Your task to perform on an android device: change the upload size in google photos Image 0: 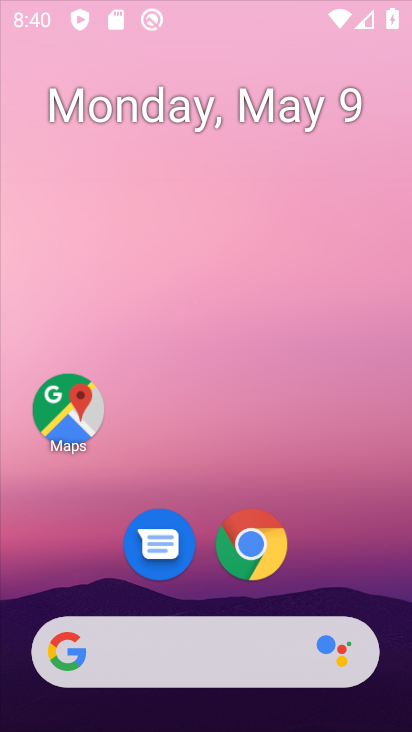
Step 0: click (190, 630)
Your task to perform on an android device: change the upload size in google photos Image 1: 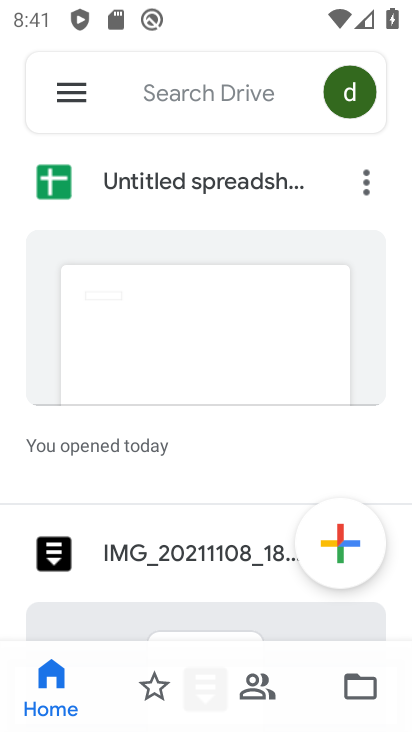
Step 1: press home button
Your task to perform on an android device: change the upload size in google photos Image 2: 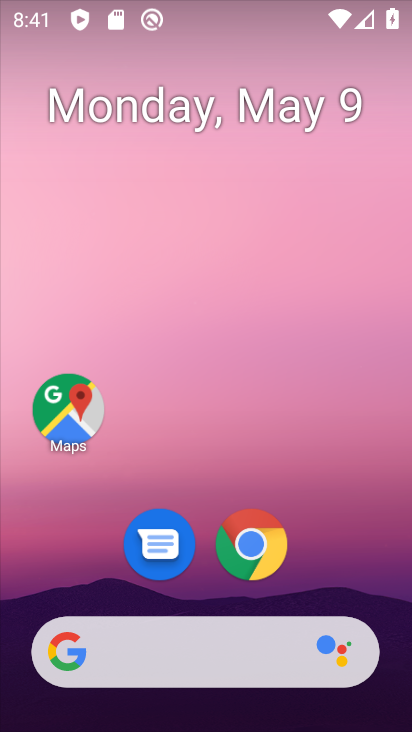
Step 2: drag from (341, 575) to (149, 43)
Your task to perform on an android device: change the upload size in google photos Image 3: 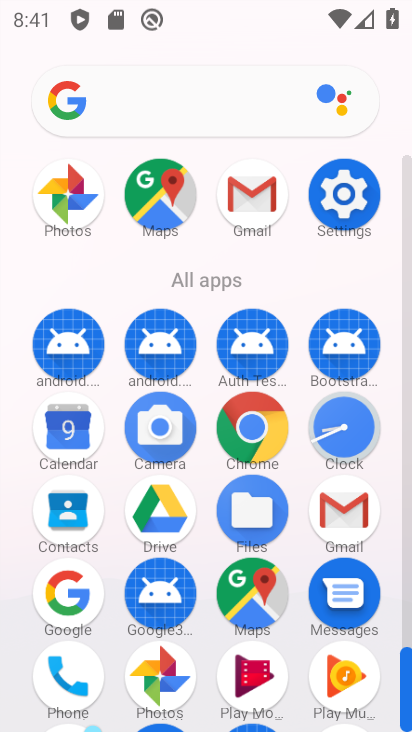
Step 3: click (69, 190)
Your task to perform on an android device: change the upload size in google photos Image 4: 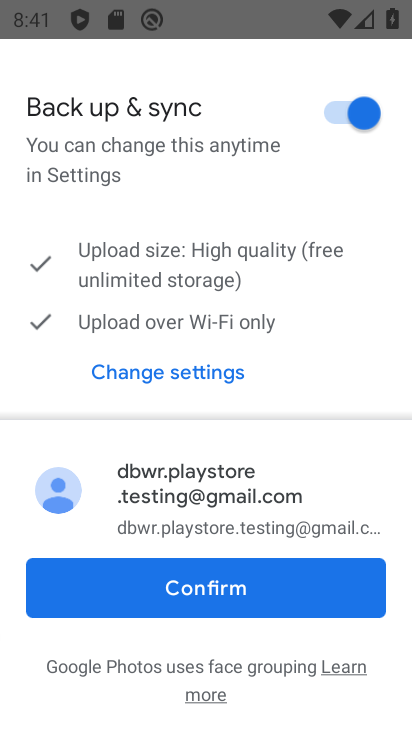
Step 4: click (195, 595)
Your task to perform on an android device: change the upload size in google photos Image 5: 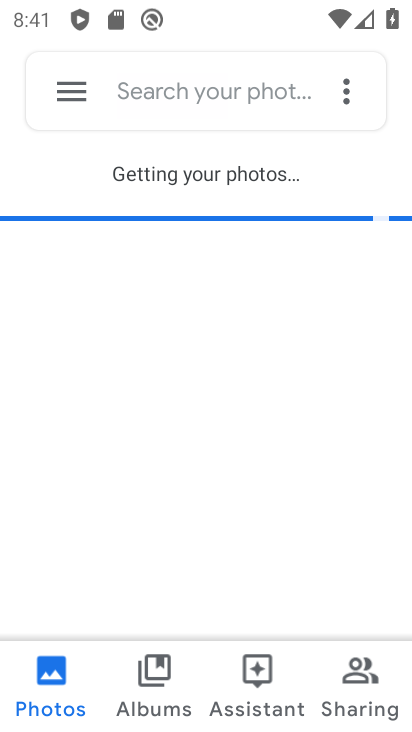
Step 5: click (71, 92)
Your task to perform on an android device: change the upload size in google photos Image 6: 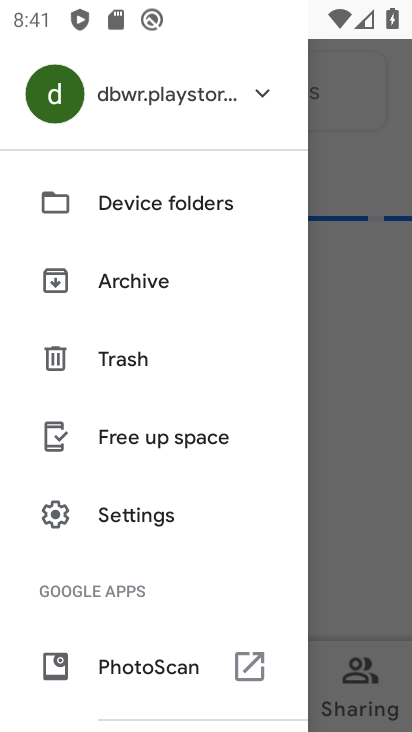
Step 6: click (135, 517)
Your task to perform on an android device: change the upload size in google photos Image 7: 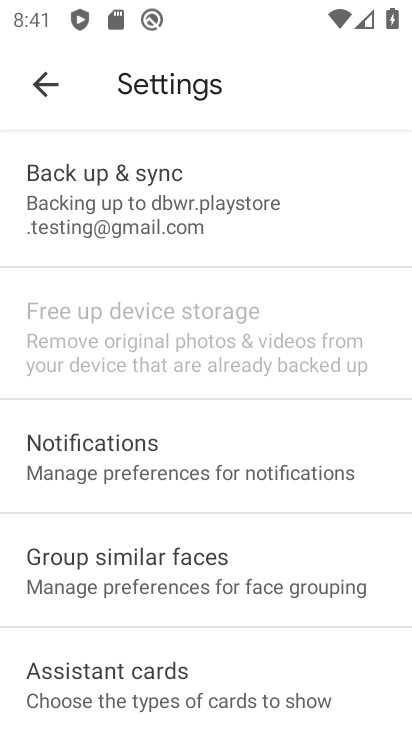
Step 7: click (105, 190)
Your task to perform on an android device: change the upload size in google photos Image 8: 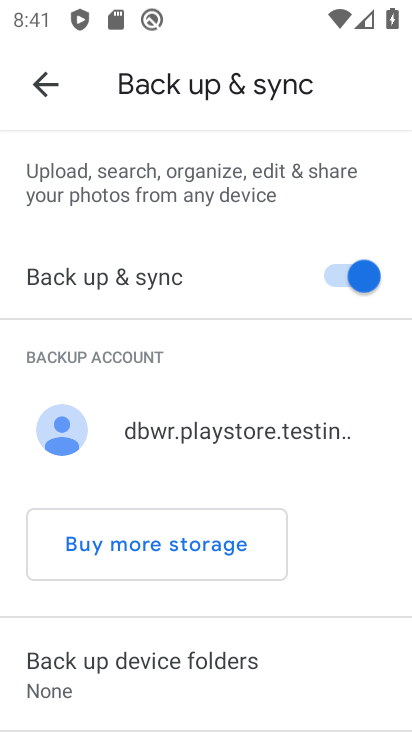
Step 8: drag from (319, 527) to (239, 235)
Your task to perform on an android device: change the upload size in google photos Image 9: 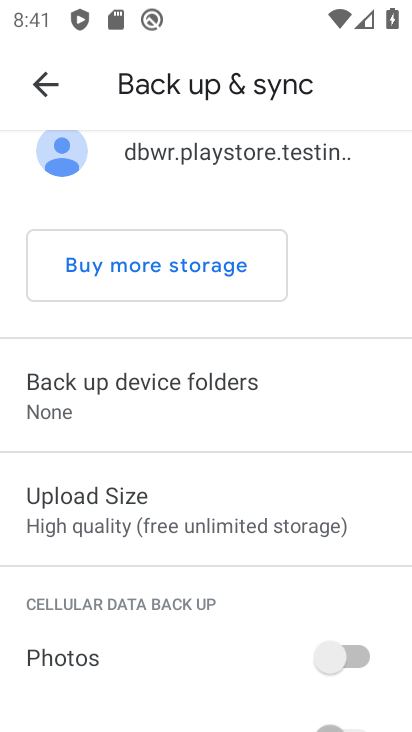
Step 9: click (102, 498)
Your task to perform on an android device: change the upload size in google photos Image 10: 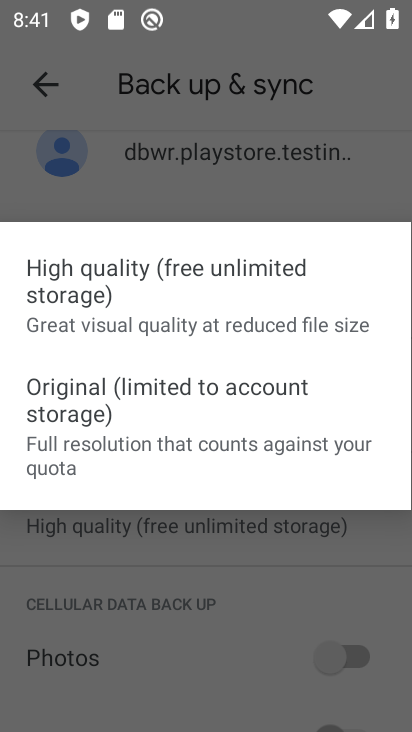
Step 10: click (109, 376)
Your task to perform on an android device: change the upload size in google photos Image 11: 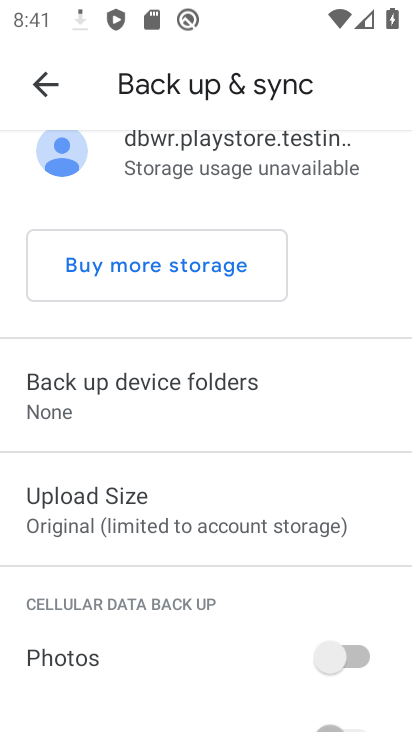
Step 11: task complete